Your task to perform on an android device: Search for vegetarian restaurants on Maps Image 0: 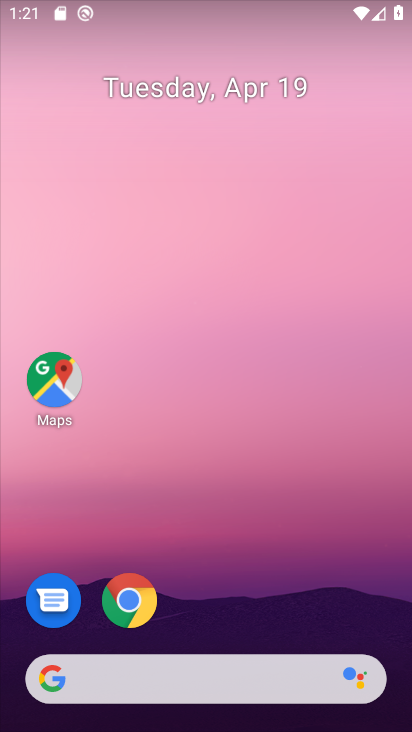
Step 0: drag from (375, 559) to (345, 64)
Your task to perform on an android device: Search for vegetarian restaurants on Maps Image 1: 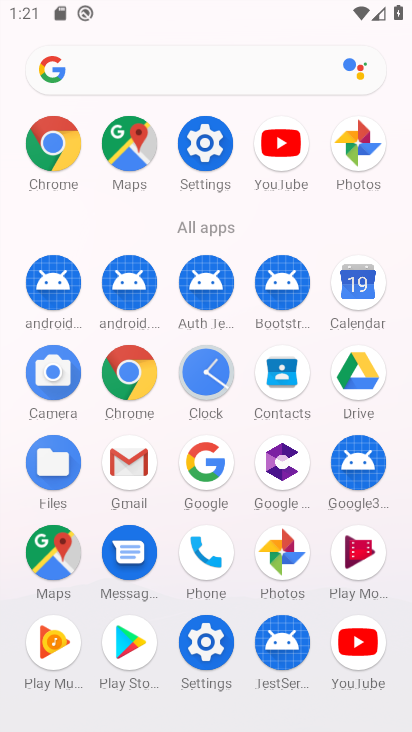
Step 1: click (131, 136)
Your task to perform on an android device: Search for vegetarian restaurants on Maps Image 2: 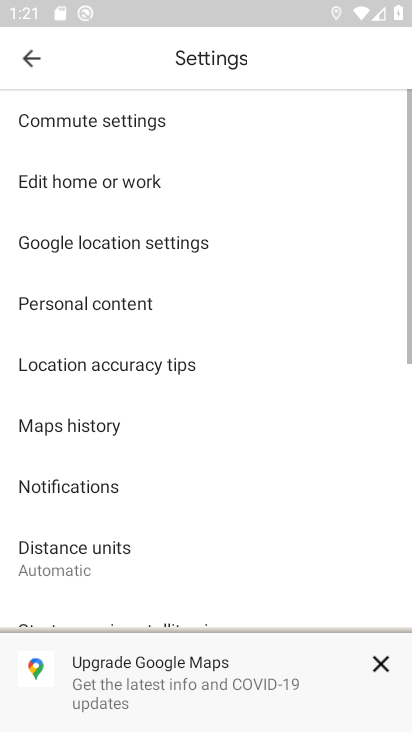
Step 2: click (37, 59)
Your task to perform on an android device: Search for vegetarian restaurants on Maps Image 3: 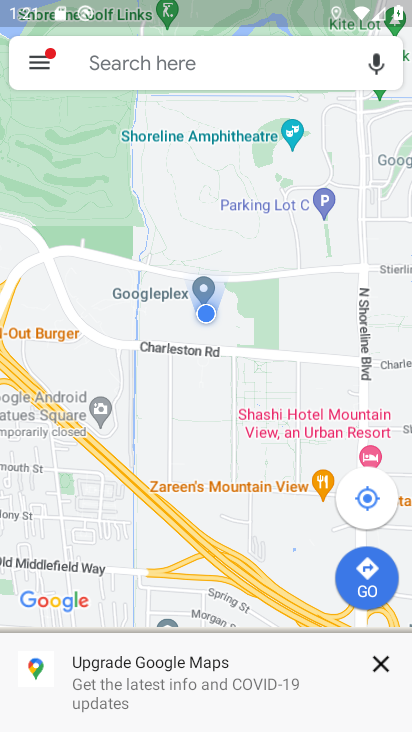
Step 3: click (217, 64)
Your task to perform on an android device: Search for vegetarian restaurants on Maps Image 4: 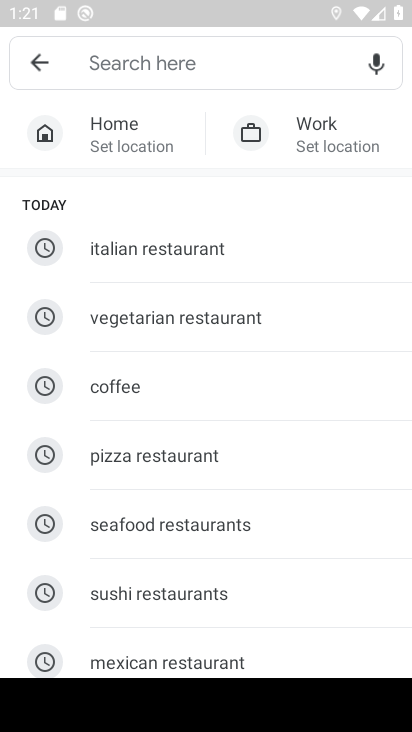
Step 4: click (197, 327)
Your task to perform on an android device: Search for vegetarian restaurants on Maps Image 5: 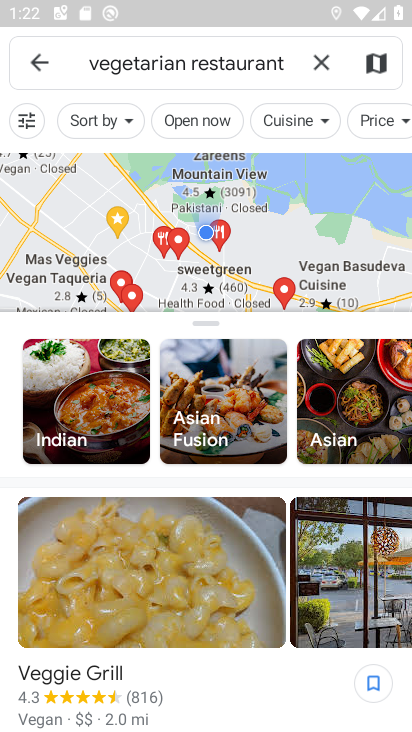
Step 5: task complete